Your task to perform on an android device: open app "Google Play Music" Image 0: 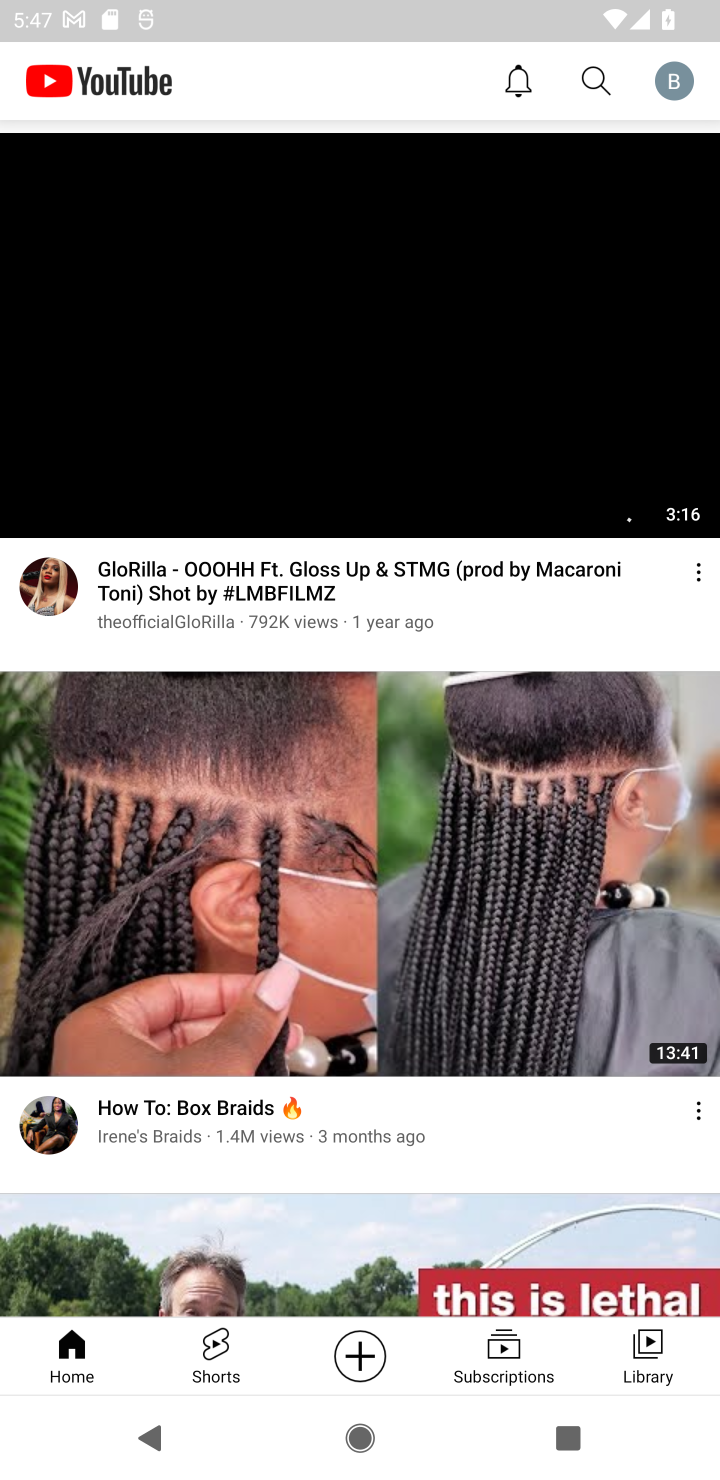
Step 0: press home button
Your task to perform on an android device: open app "Google Play Music" Image 1: 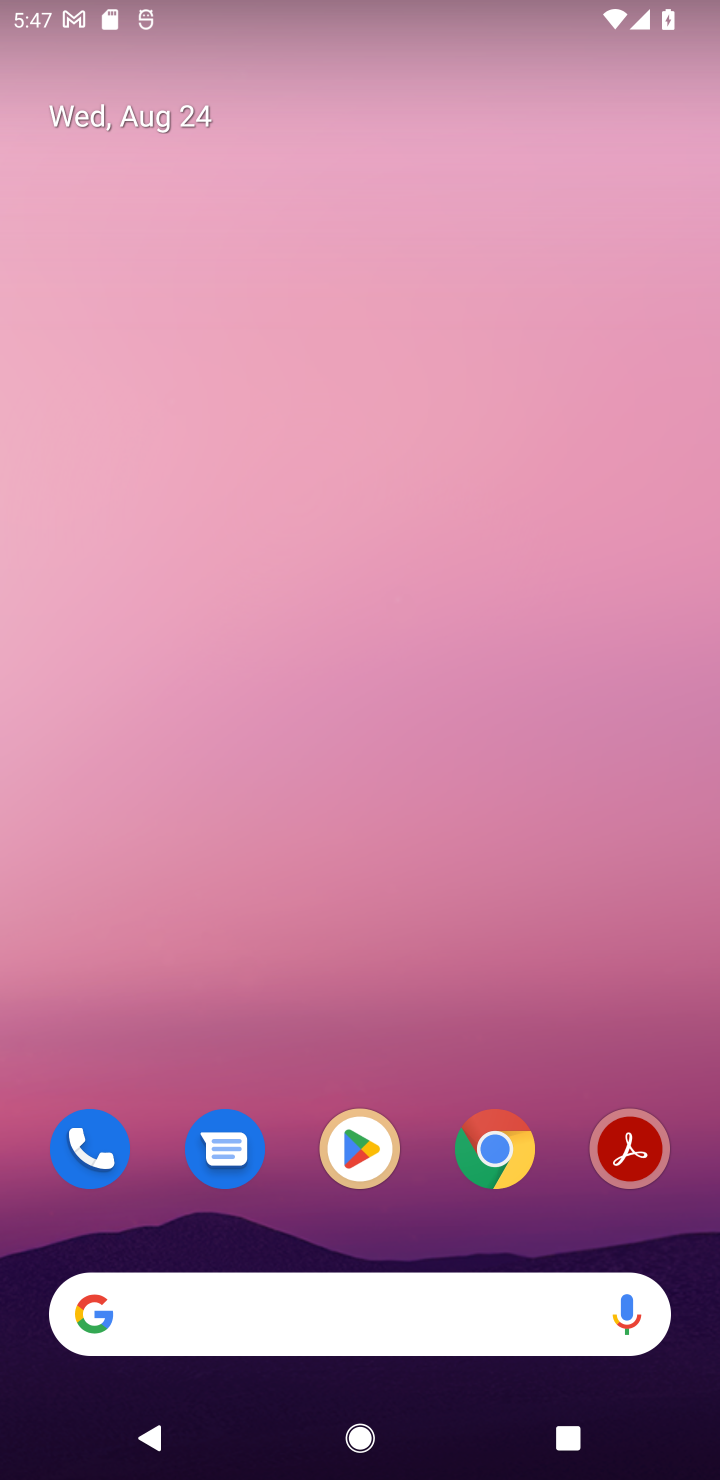
Step 1: press home button
Your task to perform on an android device: open app "Google Play Music" Image 2: 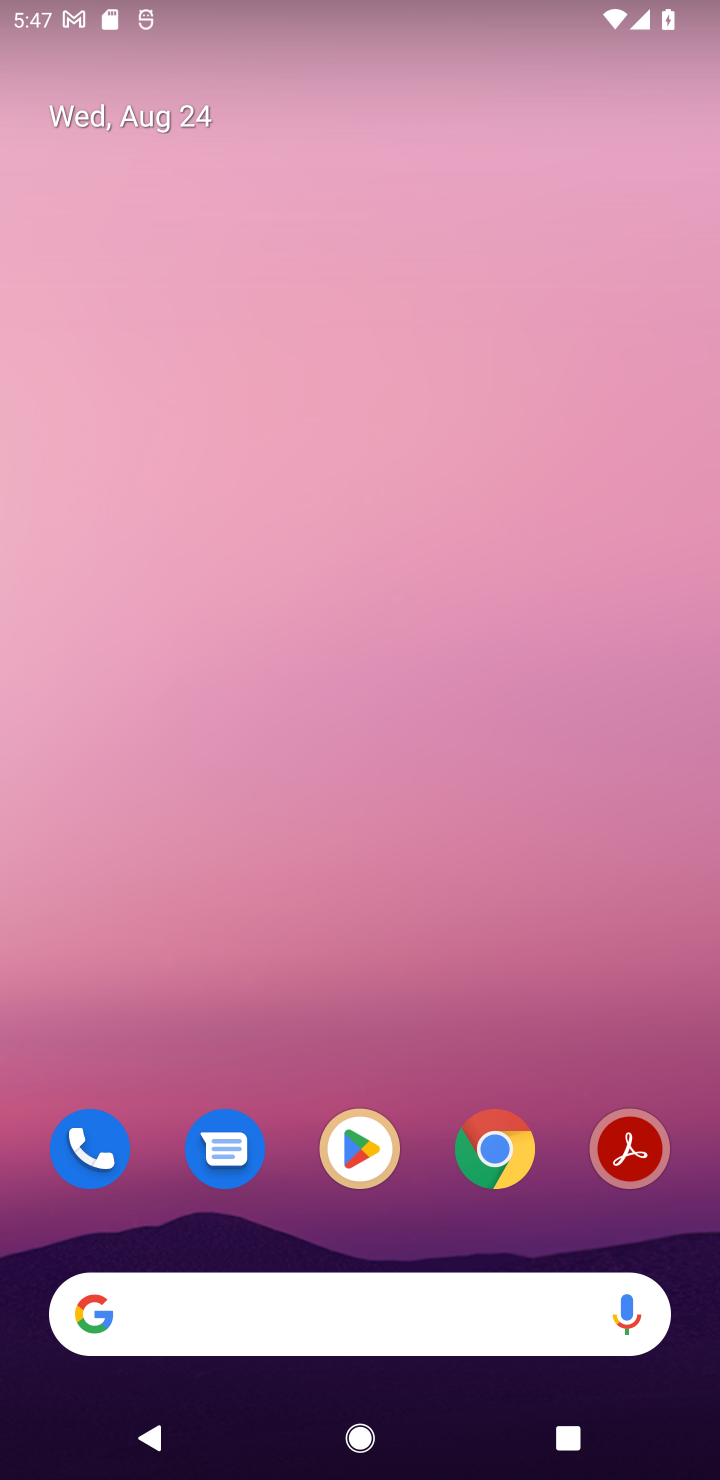
Step 2: click (370, 1134)
Your task to perform on an android device: open app "Google Play Music" Image 3: 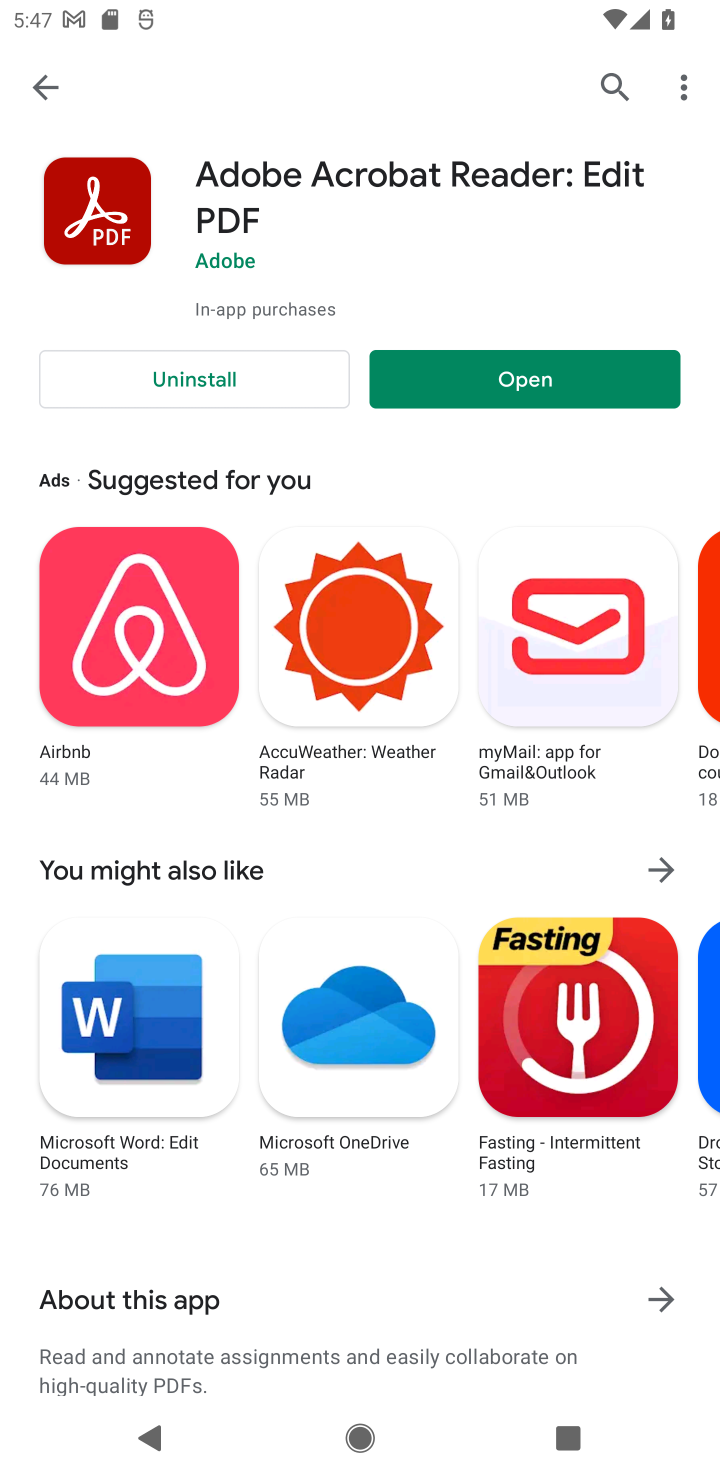
Step 3: click (601, 83)
Your task to perform on an android device: open app "Google Play Music" Image 4: 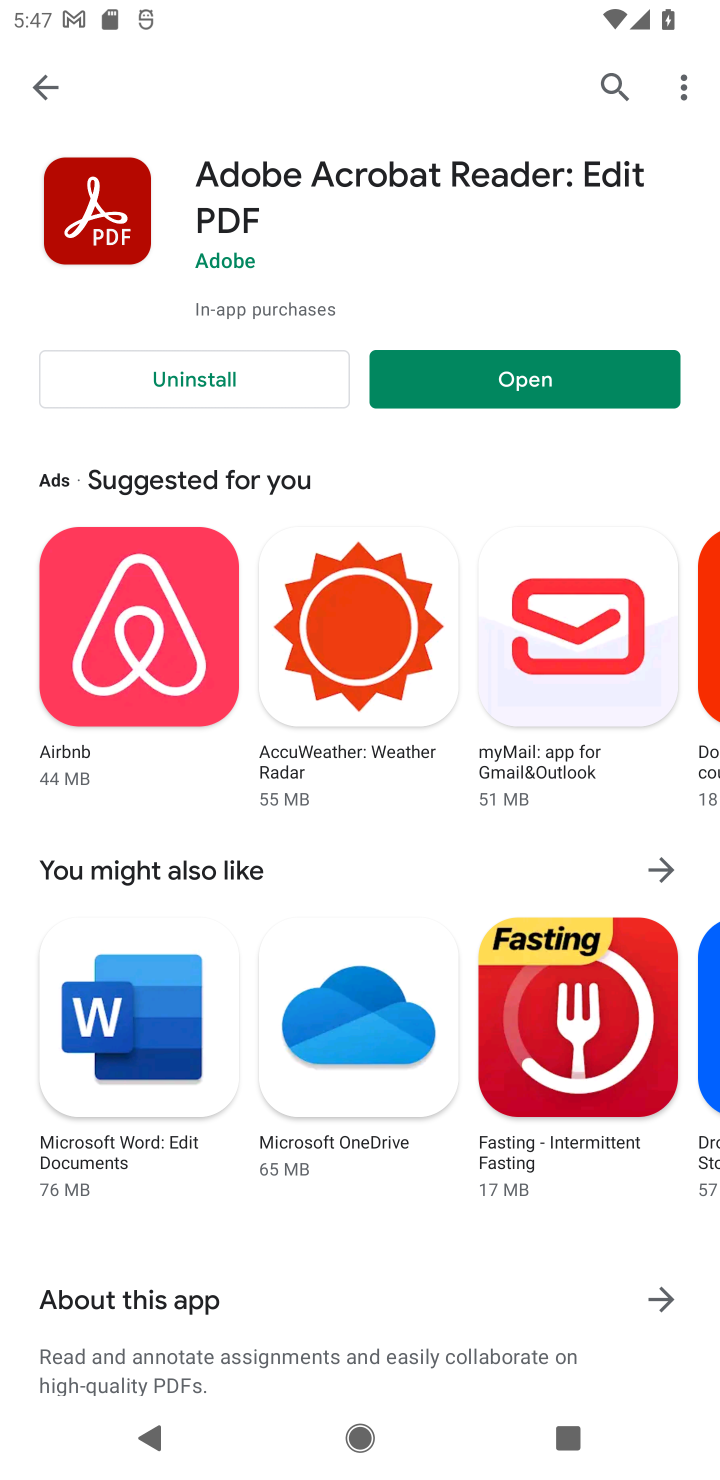
Step 4: click (613, 84)
Your task to perform on an android device: open app "Google Play Music" Image 5: 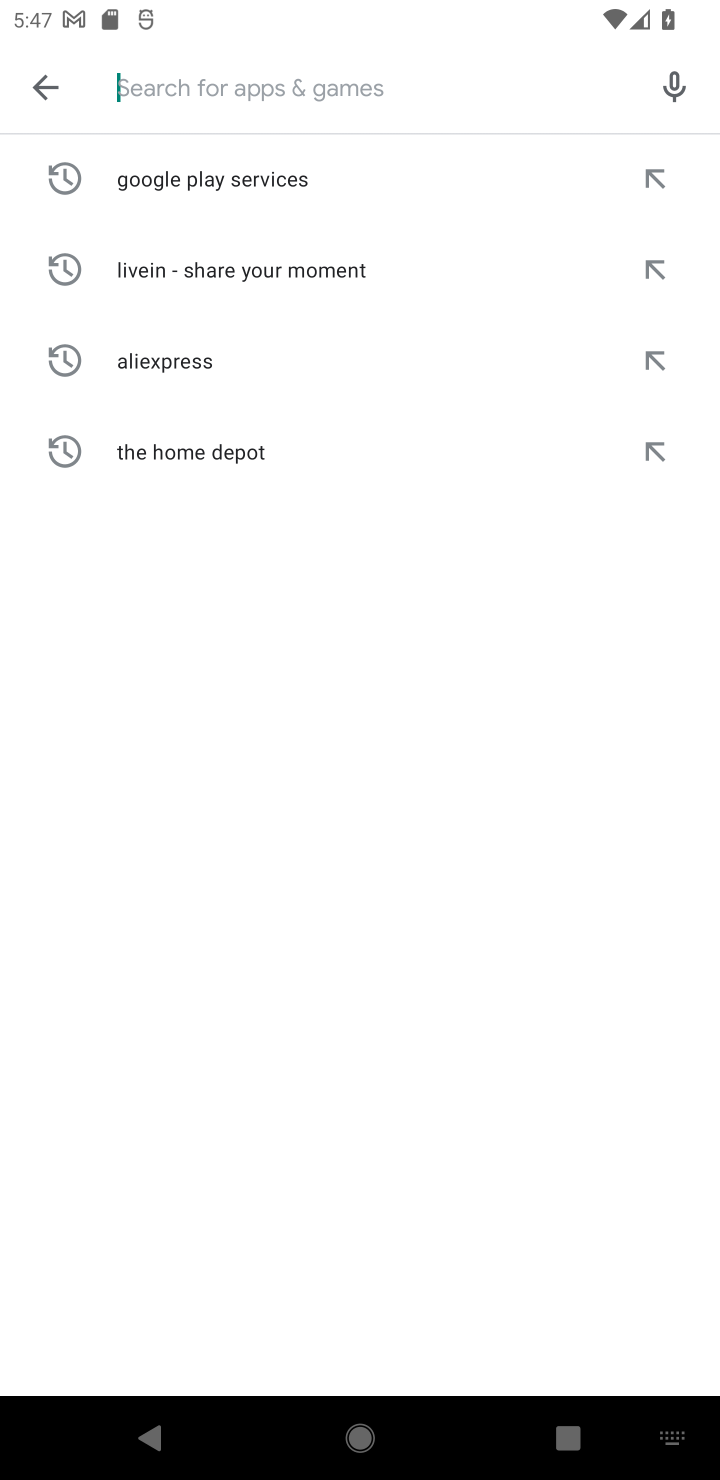
Step 5: type "Google Play Music"
Your task to perform on an android device: open app "Google Play Music" Image 6: 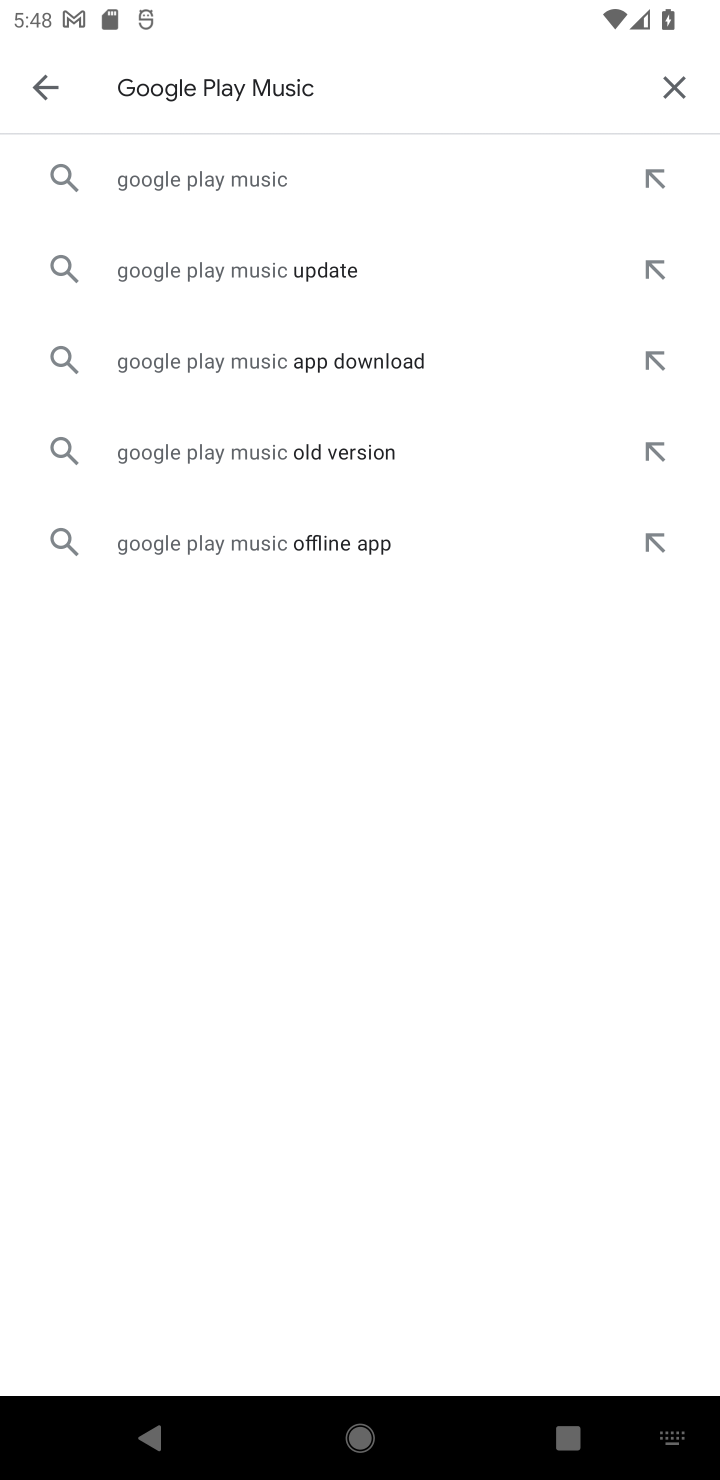
Step 6: click (262, 177)
Your task to perform on an android device: open app "Google Play Music" Image 7: 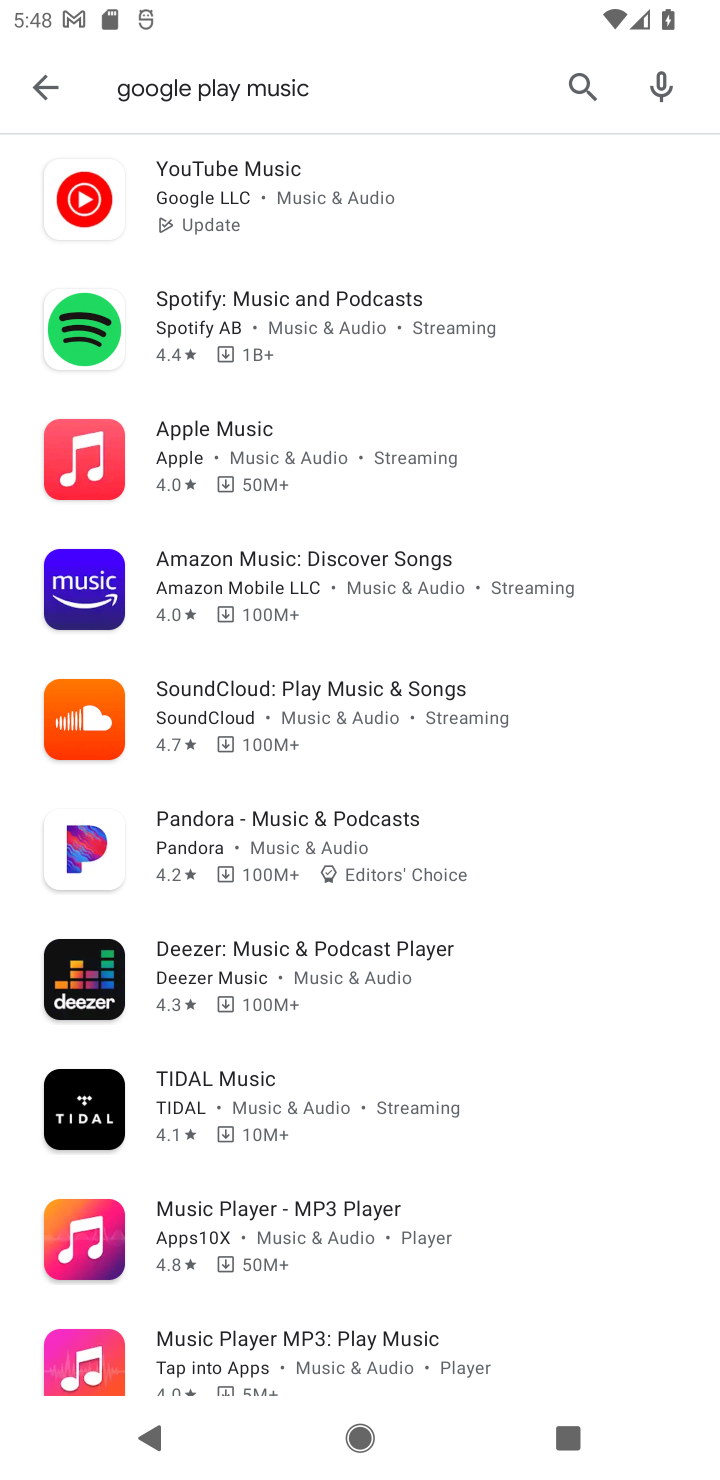
Step 7: task complete